Your task to perform on an android device: What is the news today? Image 0: 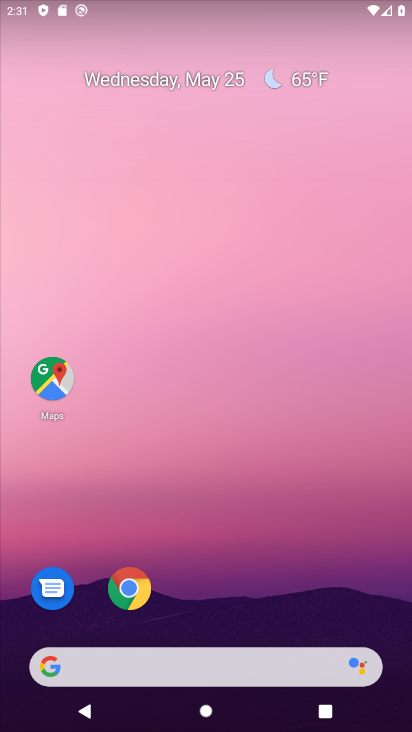
Step 0: click (123, 593)
Your task to perform on an android device: What is the news today? Image 1: 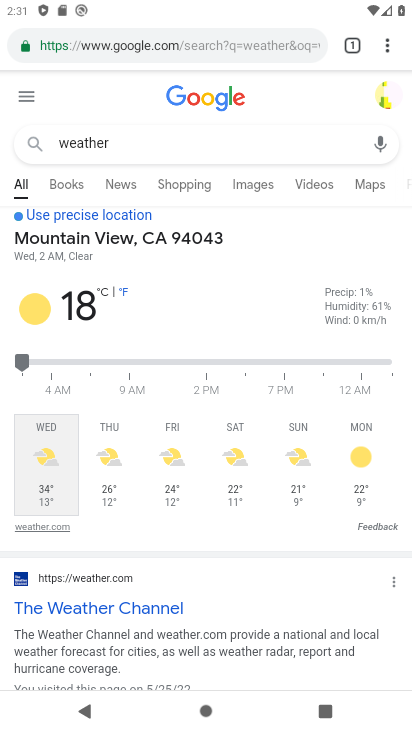
Step 1: click (145, 41)
Your task to perform on an android device: What is the news today? Image 2: 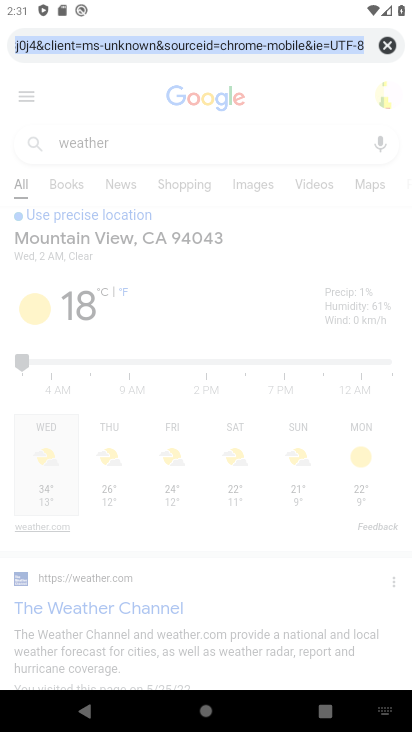
Step 2: type "news"
Your task to perform on an android device: What is the news today? Image 3: 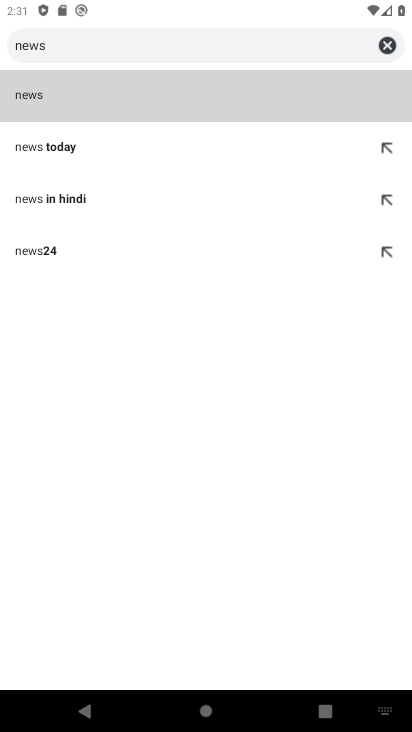
Step 3: click (116, 106)
Your task to perform on an android device: What is the news today? Image 4: 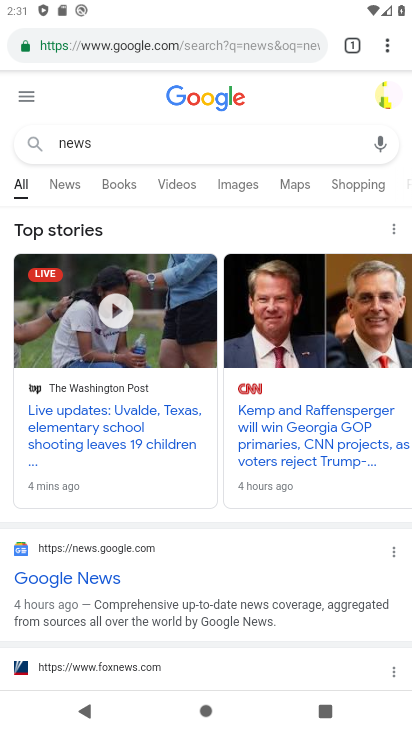
Step 4: task complete